Your task to perform on an android device: delete the emails in spam in the gmail app Image 0: 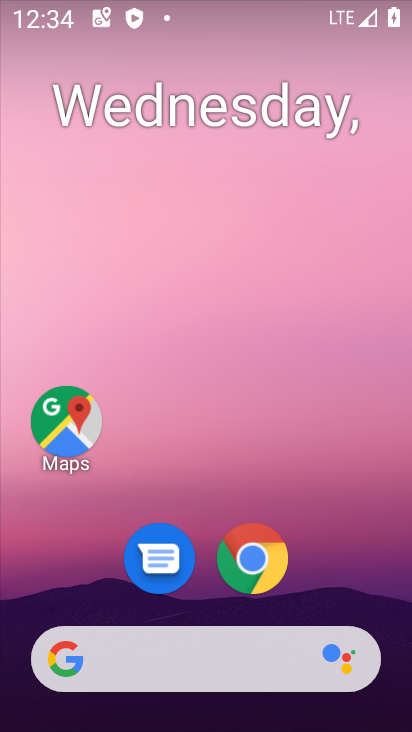
Step 0: drag from (217, 665) to (139, 83)
Your task to perform on an android device: delete the emails in spam in the gmail app Image 1: 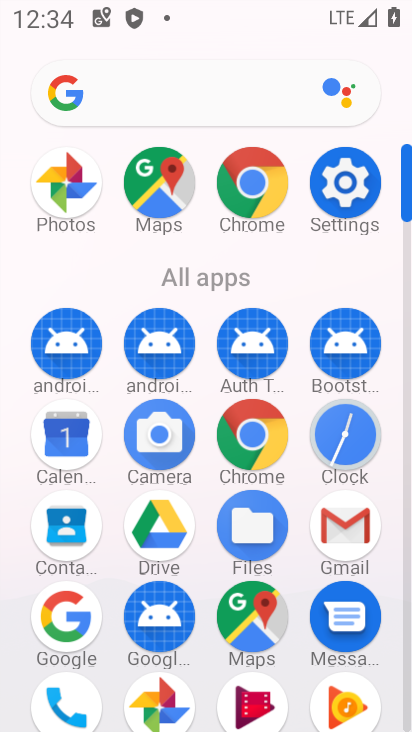
Step 1: click (321, 521)
Your task to perform on an android device: delete the emails in spam in the gmail app Image 2: 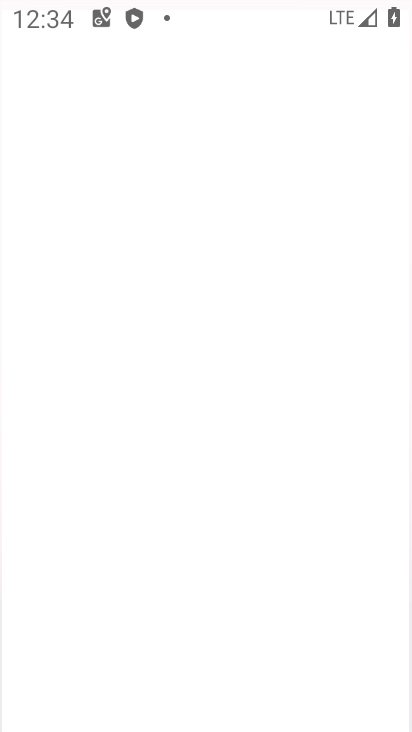
Step 2: click (325, 521)
Your task to perform on an android device: delete the emails in spam in the gmail app Image 3: 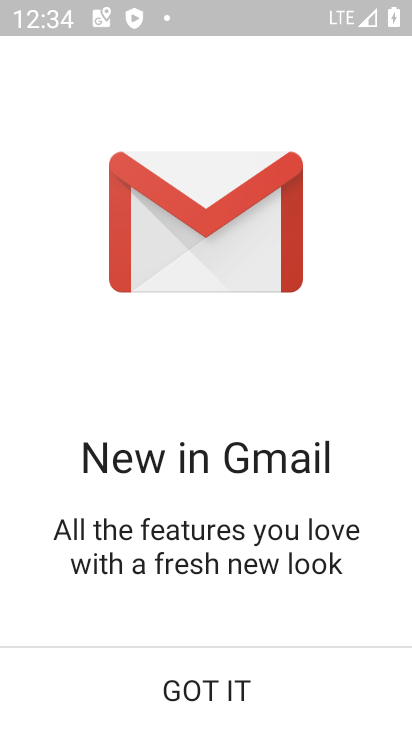
Step 3: click (210, 679)
Your task to perform on an android device: delete the emails in spam in the gmail app Image 4: 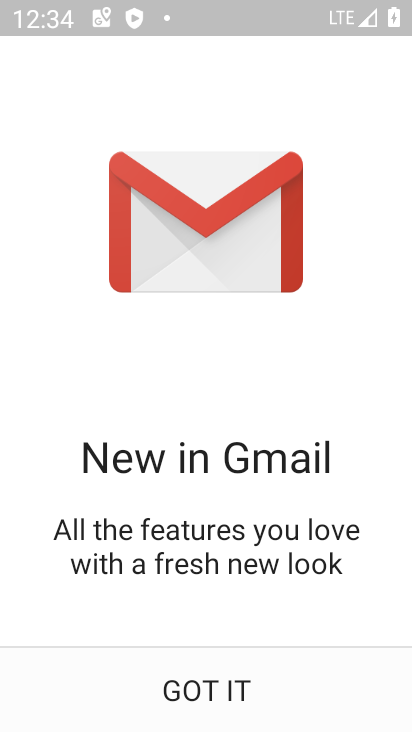
Step 4: click (209, 692)
Your task to perform on an android device: delete the emails in spam in the gmail app Image 5: 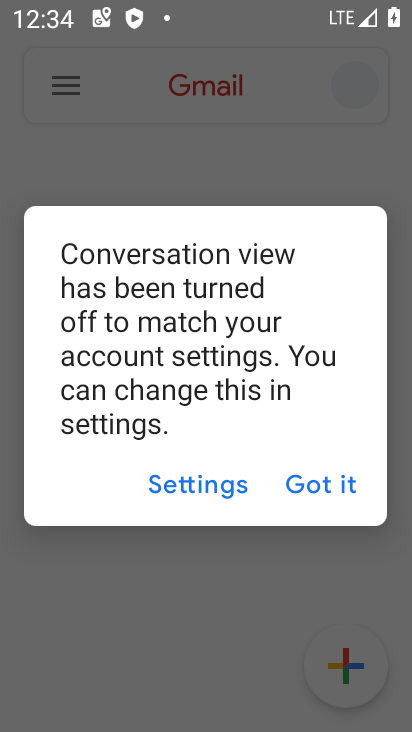
Step 5: click (220, 678)
Your task to perform on an android device: delete the emails in spam in the gmail app Image 6: 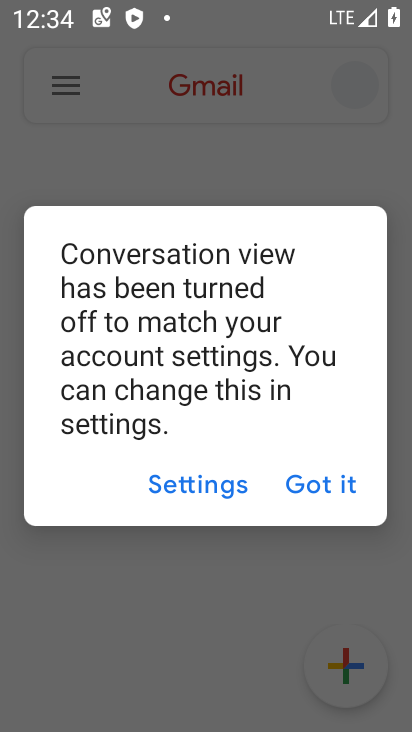
Step 6: click (219, 680)
Your task to perform on an android device: delete the emails in spam in the gmail app Image 7: 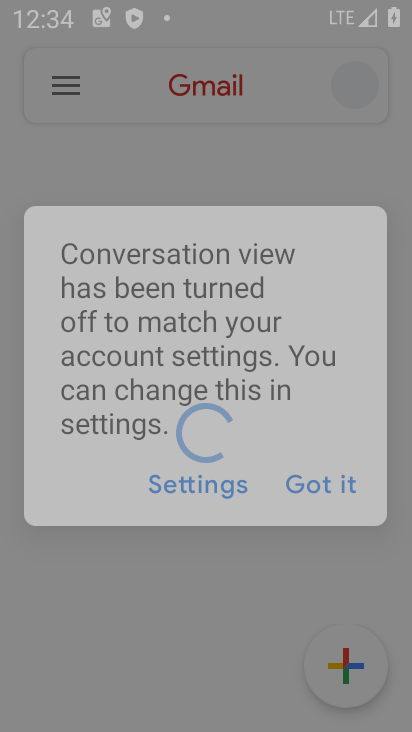
Step 7: click (235, 699)
Your task to perform on an android device: delete the emails in spam in the gmail app Image 8: 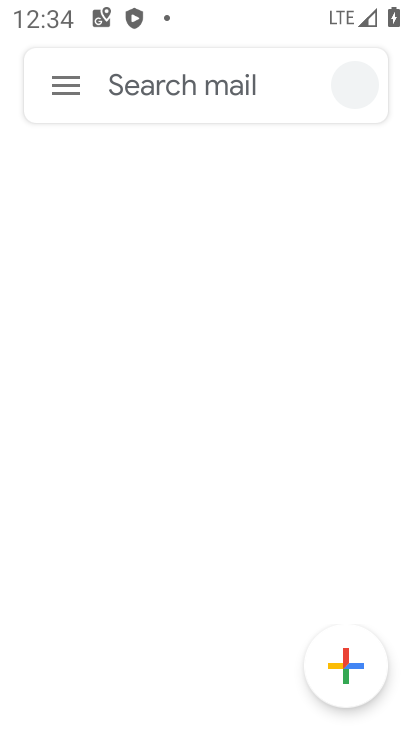
Step 8: click (326, 476)
Your task to perform on an android device: delete the emails in spam in the gmail app Image 9: 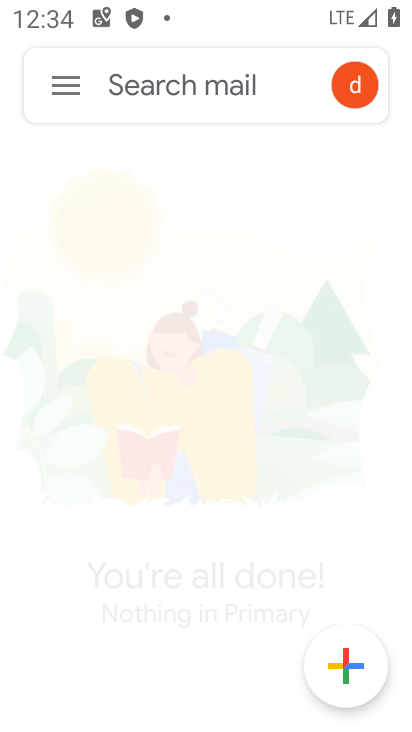
Step 9: click (326, 481)
Your task to perform on an android device: delete the emails in spam in the gmail app Image 10: 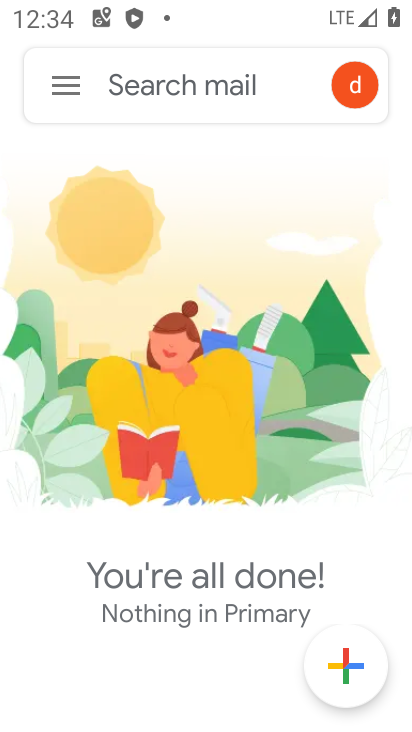
Step 10: click (326, 481)
Your task to perform on an android device: delete the emails in spam in the gmail app Image 11: 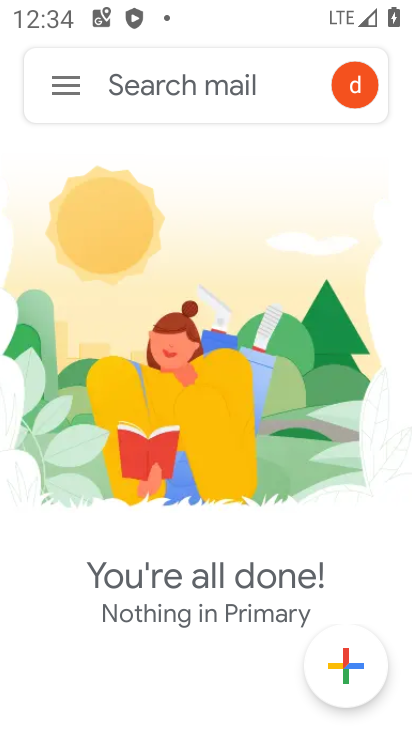
Step 11: click (326, 481)
Your task to perform on an android device: delete the emails in spam in the gmail app Image 12: 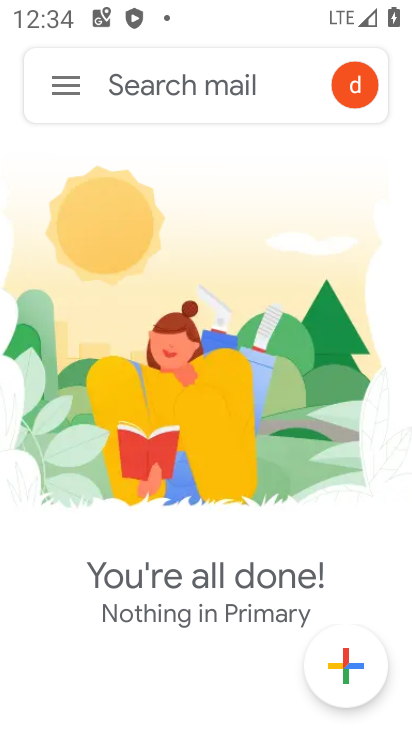
Step 12: click (330, 480)
Your task to perform on an android device: delete the emails in spam in the gmail app Image 13: 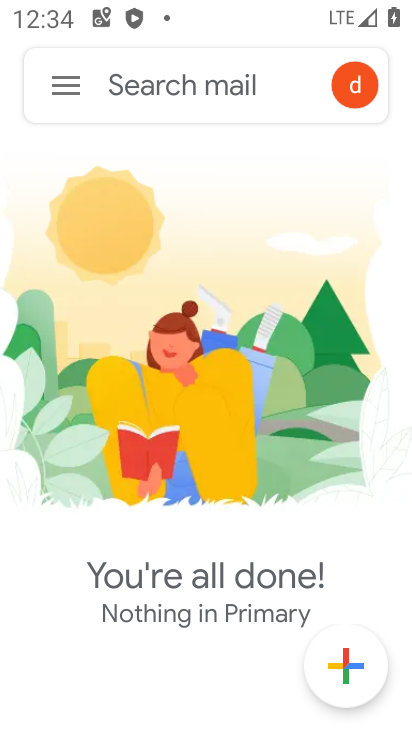
Step 13: click (344, 470)
Your task to perform on an android device: delete the emails in spam in the gmail app Image 14: 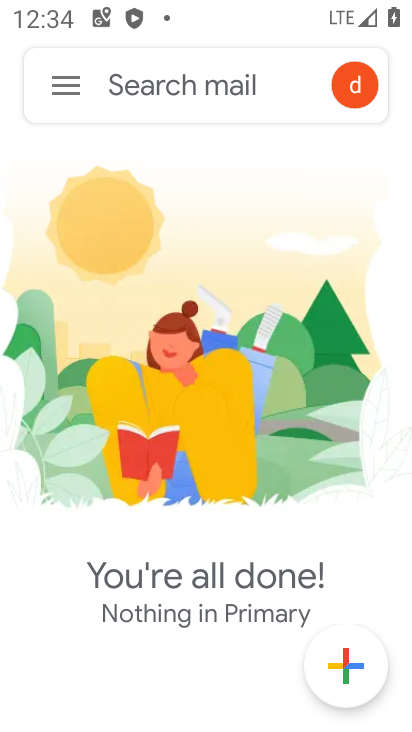
Step 14: press back button
Your task to perform on an android device: delete the emails in spam in the gmail app Image 15: 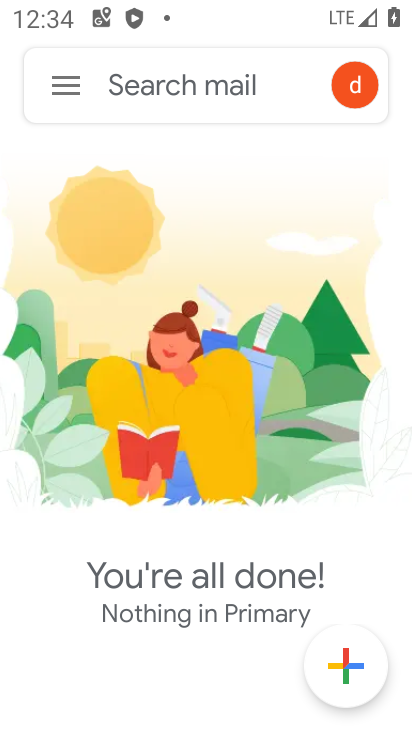
Step 15: press back button
Your task to perform on an android device: delete the emails in spam in the gmail app Image 16: 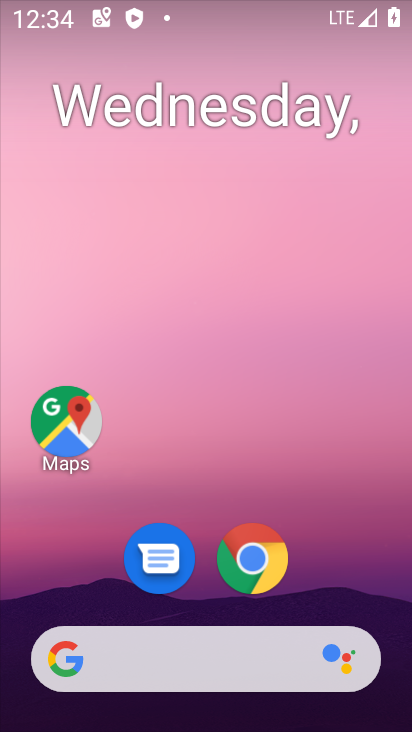
Step 16: drag from (266, 652) to (125, 143)
Your task to perform on an android device: delete the emails in spam in the gmail app Image 17: 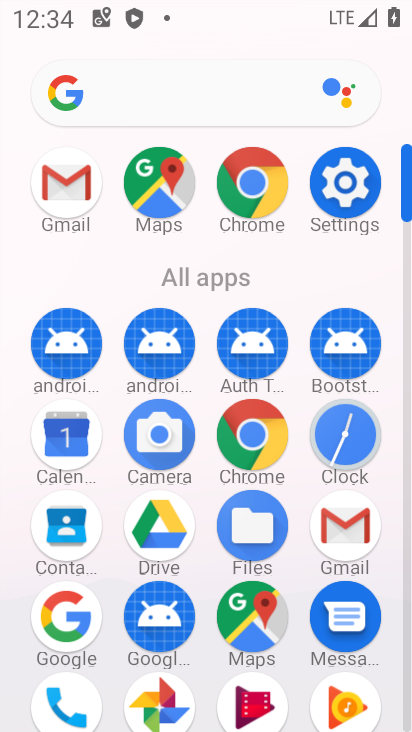
Step 17: click (339, 520)
Your task to perform on an android device: delete the emails in spam in the gmail app Image 18: 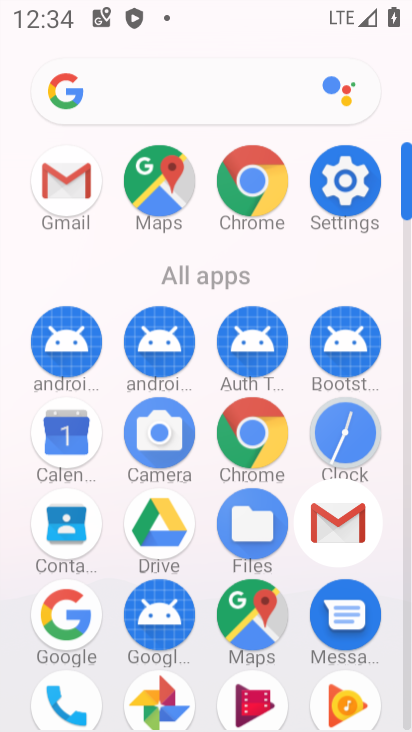
Step 18: click (346, 520)
Your task to perform on an android device: delete the emails in spam in the gmail app Image 19: 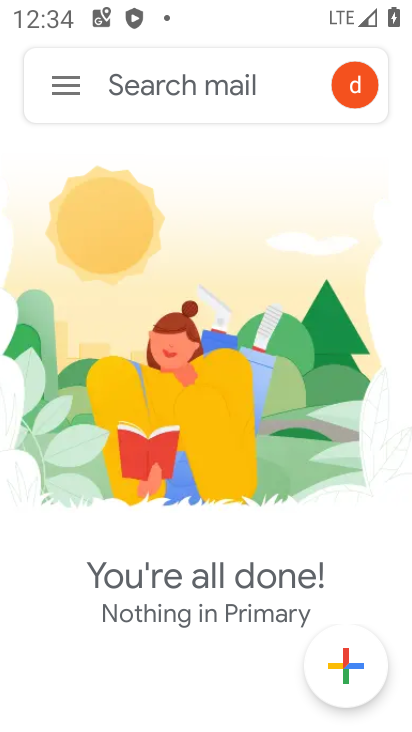
Step 19: click (56, 85)
Your task to perform on an android device: delete the emails in spam in the gmail app Image 20: 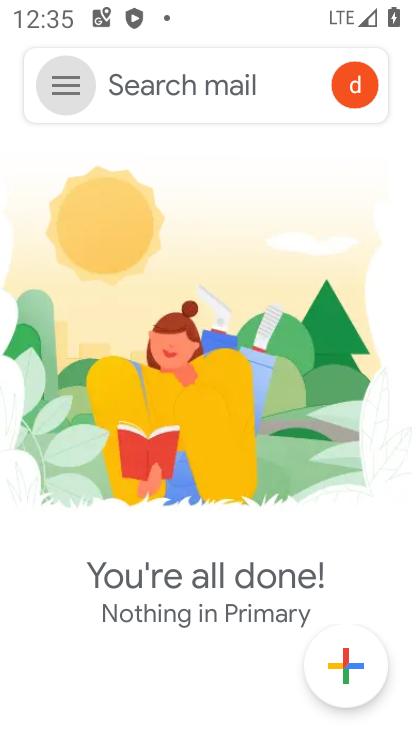
Step 20: click (56, 85)
Your task to perform on an android device: delete the emails in spam in the gmail app Image 21: 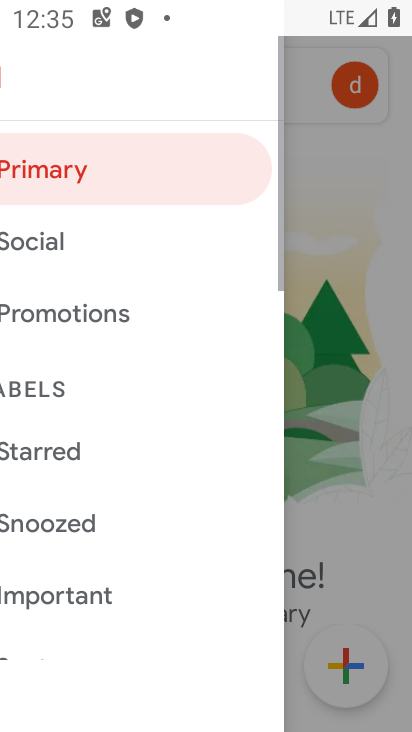
Step 21: click (56, 85)
Your task to perform on an android device: delete the emails in spam in the gmail app Image 22: 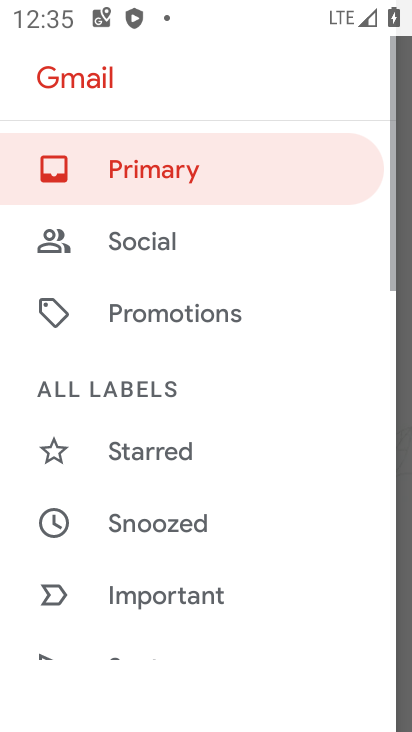
Step 22: drag from (122, 545) to (130, 127)
Your task to perform on an android device: delete the emails in spam in the gmail app Image 23: 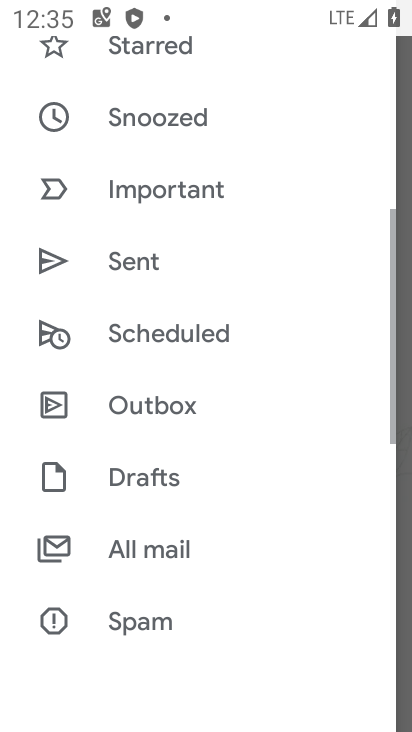
Step 23: drag from (184, 572) to (178, 141)
Your task to perform on an android device: delete the emails in spam in the gmail app Image 24: 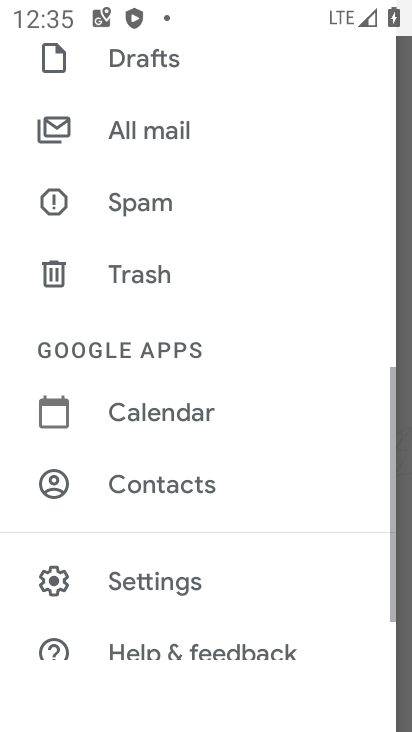
Step 24: drag from (189, 605) to (227, 167)
Your task to perform on an android device: delete the emails in spam in the gmail app Image 25: 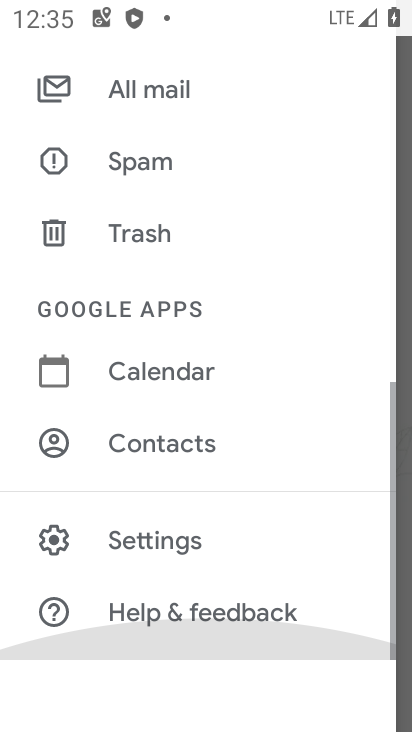
Step 25: drag from (219, 492) to (168, 163)
Your task to perform on an android device: delete the emails in spam in the gmail app Image 26: 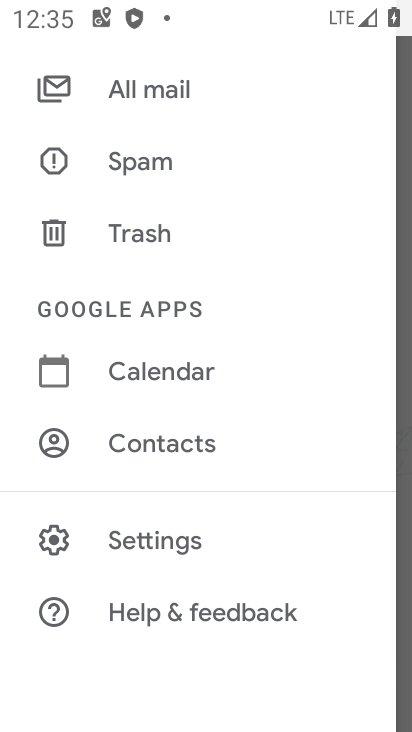
Step 26: click (108, 158)
Your task to perform on an android device: delete the emails in spam in the gmail app Image 27: 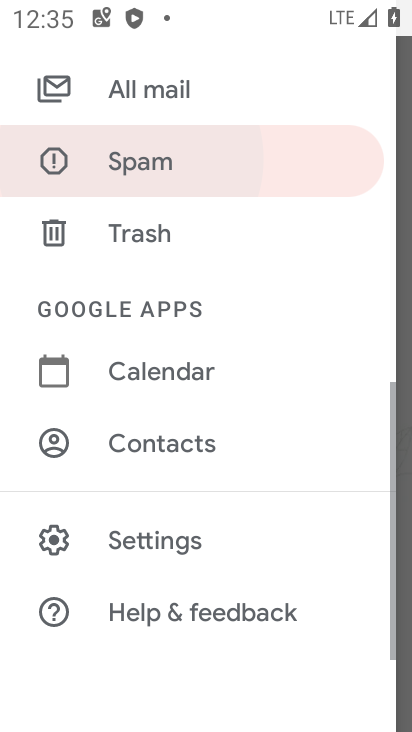
Step 27: click (107, 160)
Your task to perform on an android device: delete the emails in spam in the gmail app Image 28: 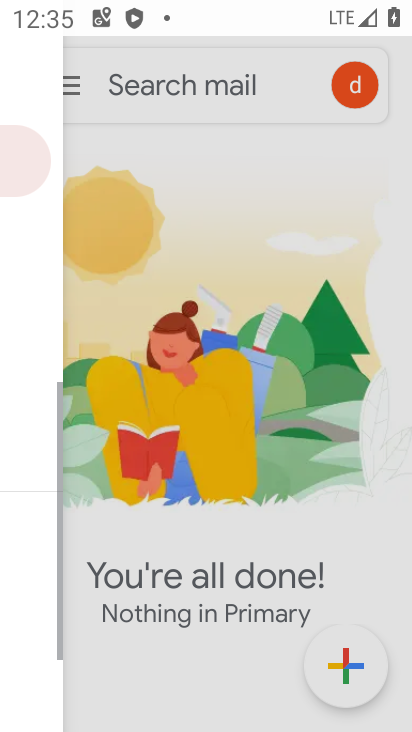
Step 28: click (105, 166)
Your task to perform on an android device: delete the emails in spam in the gmail app Image 29: 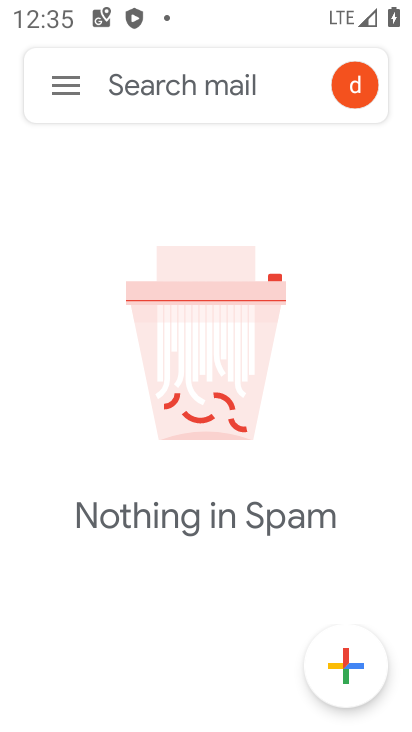
Step 29: task complete